Your task to perform on an android device: change keyboard looks Image 0: 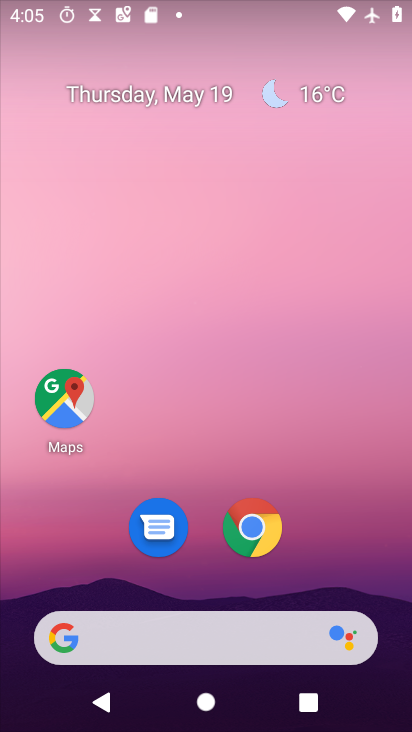
Step 0: drag from (258, 189) to (215, 8)
Your task to perform on an android device: change keyboard looks Image 1: 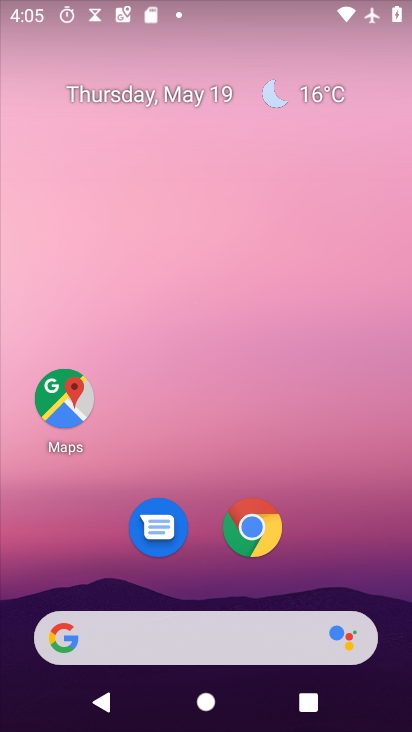
Step 1: drag from (351, 546) to (194, 0)
Your task to perform on an android device: change keyboard looks Image 2: 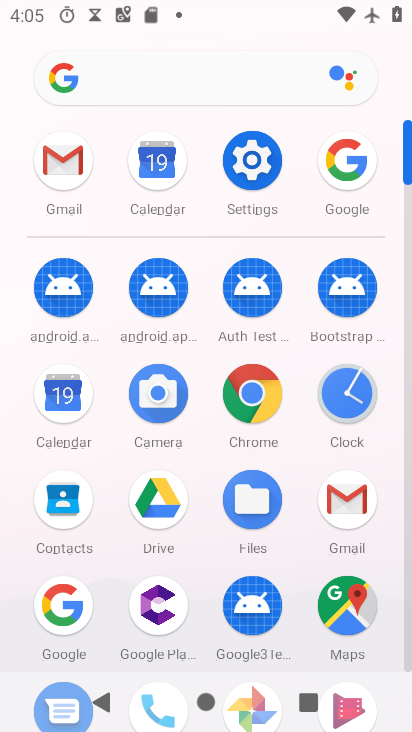
Step 2: click (253, 189)
Your task to perform on an android device: change keyboard looks Image 3: 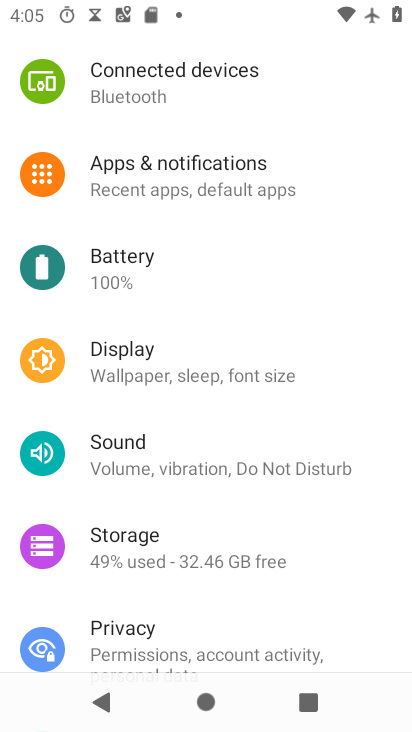
Step 3: drag from (230, 593) to (197, 54)
Your task to perform on an android device: change keyboard looks Image 4: 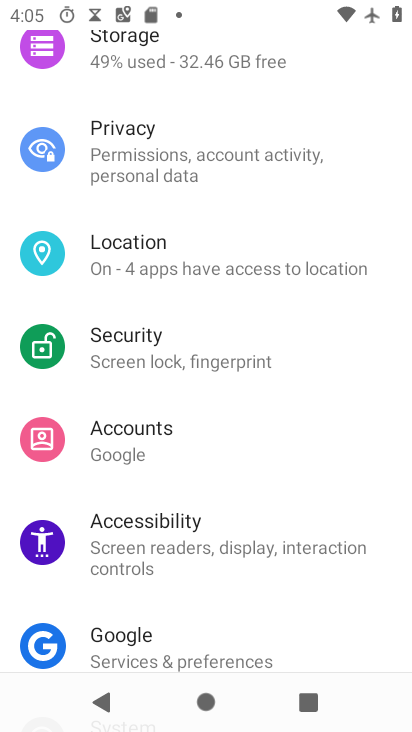
Step 4: drag from (226, 603) to (194, 130)
Your task to perform on an android device: change keyboard looks Image 5: 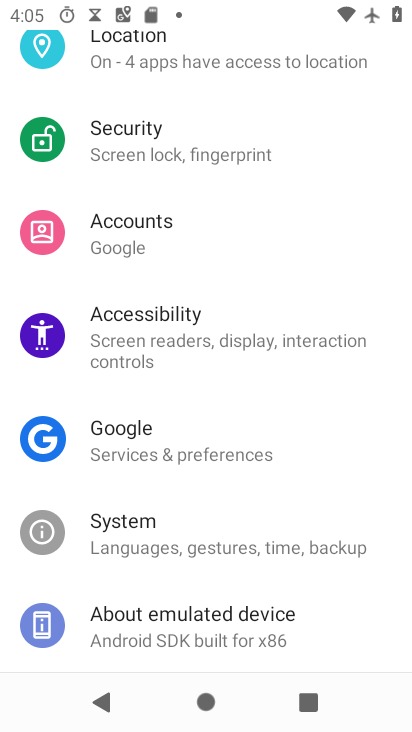
Step 5: click (194, 547)
Your task to perform on an android device: change keyboard looks Image 6: 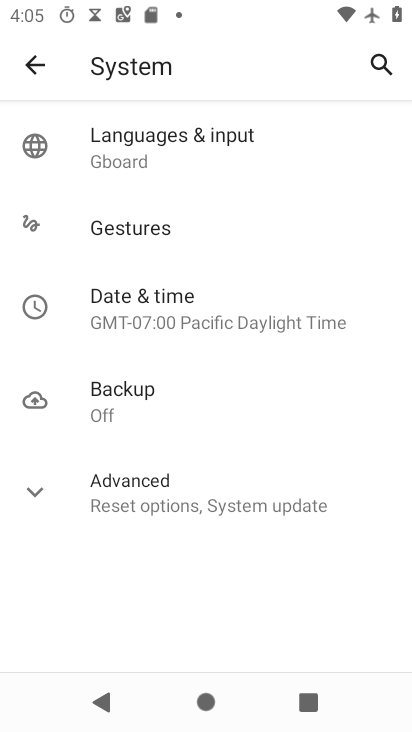
Step 6: click (143, 157)
Your task to perform on an android device: change keyboard looks Image 7: 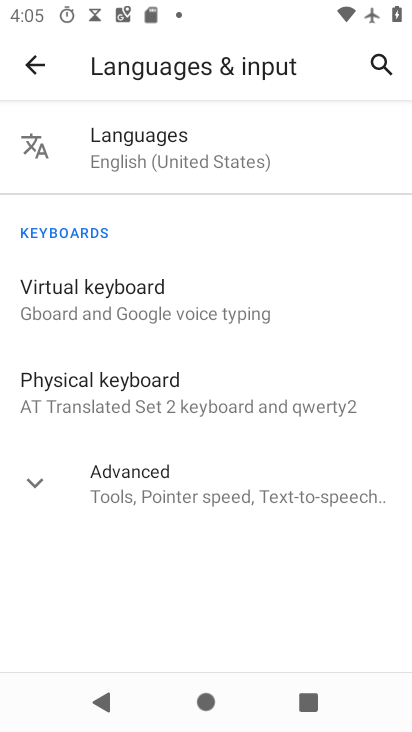
Step 7: click (175, 334)
Your task to perform on an android device: change keyboard looks Image 8: 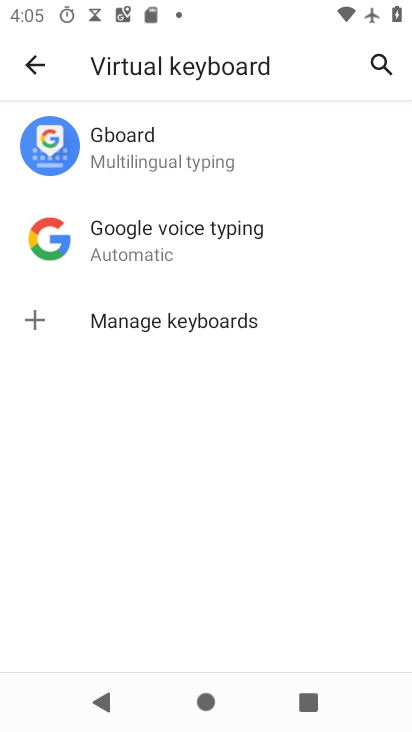
Step 8: click (171, 164)
Your task to perform on an android device: change keyboard looks Image 9: 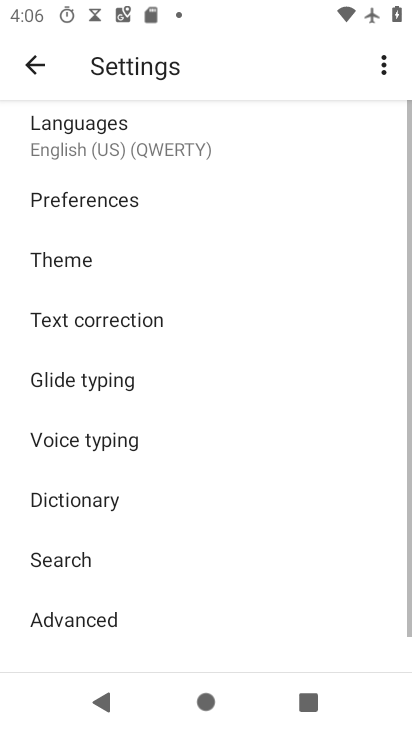
Step 9: click (142, 272)
Your task to perform on an android device: change keyboard looks Image 10: 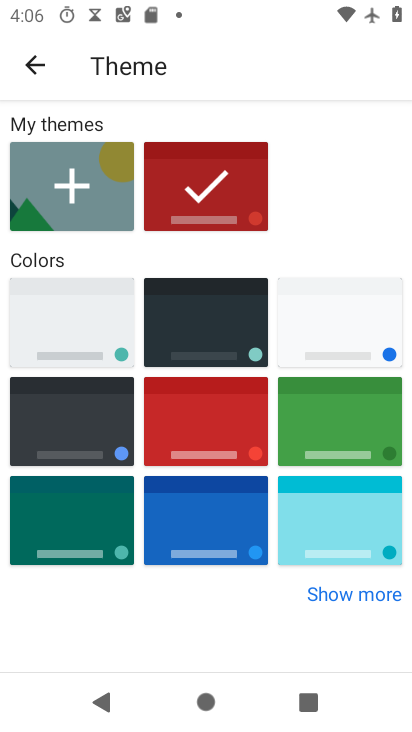
Step 10: click (189, 420)
Your task to perform on an android device: change keyboard looks Image 11: 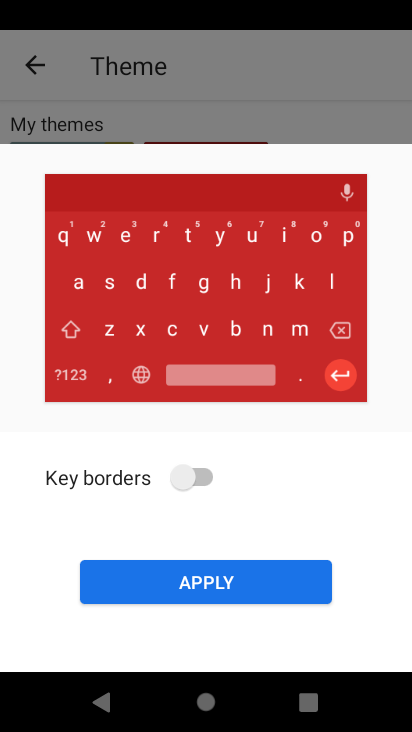
Step 11: click (268, 596)
Your task to perform on an android device: change keyboard looks Image 12: 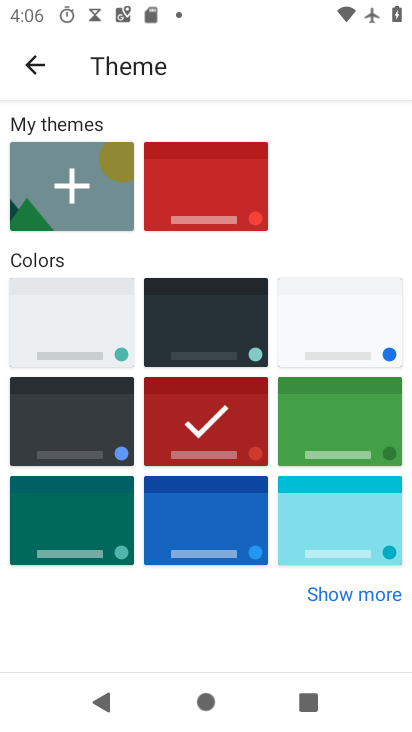
Step 12: task complete